Your task to perform on an android device: Show me the alarms in the clock app Image 0: 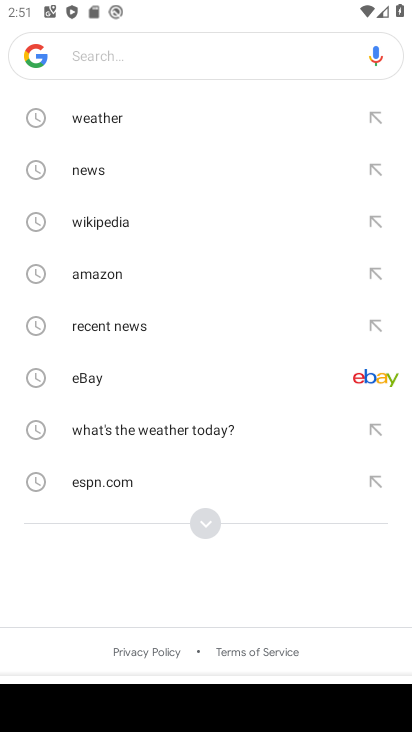
Step 0: press home button
Your task to perform on an android device: Show me the alarms in the clock app Image 1: 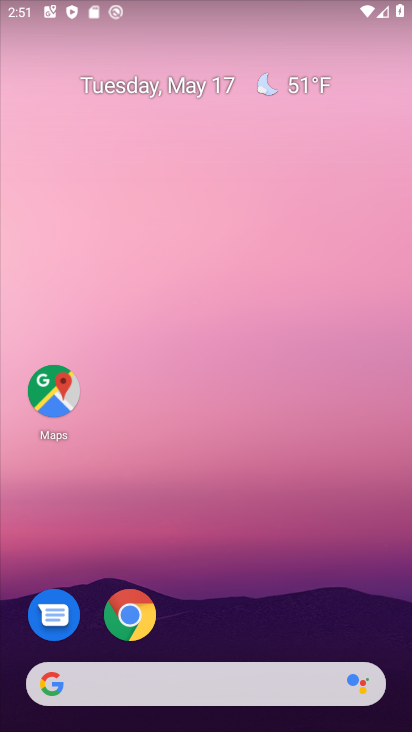
Step 1: drag from (197, 647) to (253, 16)
Your task to perform on an android device: Show me the alarms in the clock app Image 2: 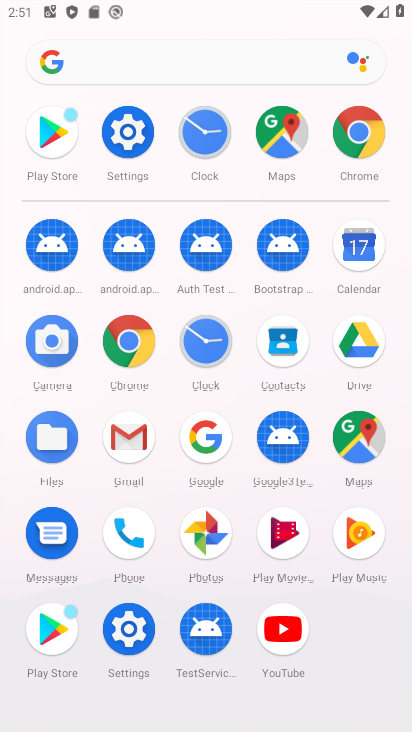
Step 2: click (202, 119)
Your task to perform on an android device: Show me the alarms in the clock app Image 3: 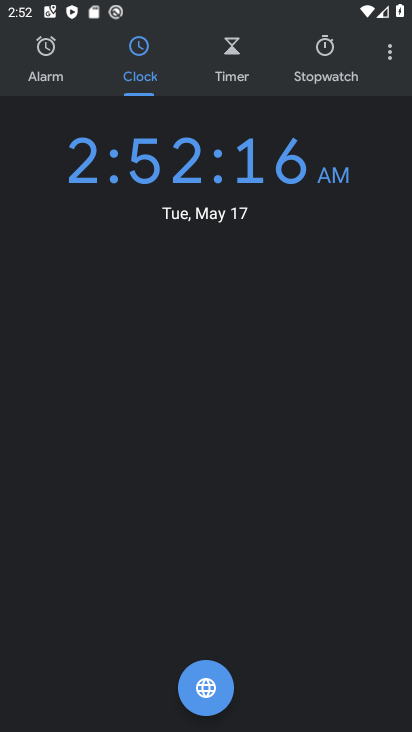
Step 3: click (37, 54)
Your task to perform on an android device: Show me the alarms in the clock app Image 4: 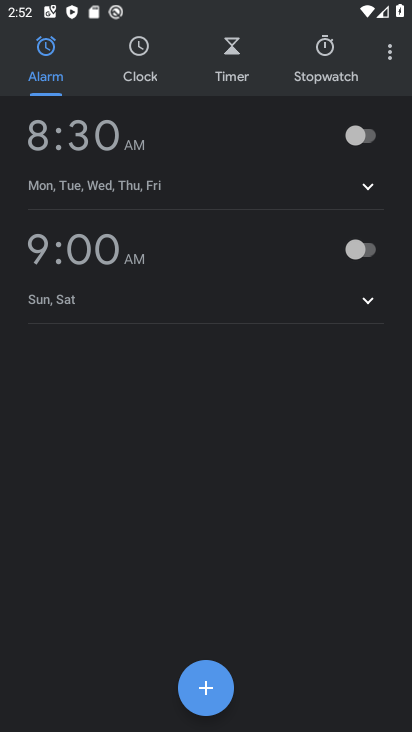
Step 4: task complete